Your task to perform on an android device: Open CNN.com Image 0: 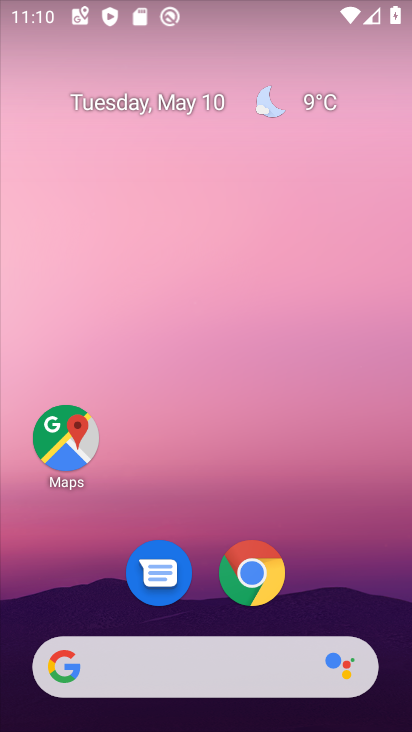
Step 0: click (253, 570)
Your task to perform on an android device: Open CNN.com Image 1: 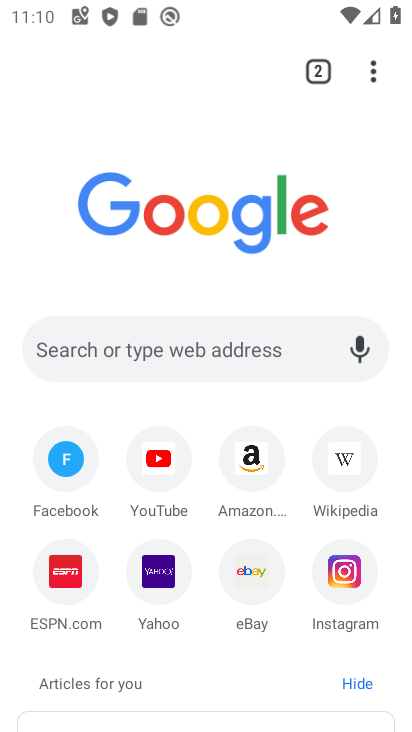
Step 1: click (184, 351)
Your task to perform on an android device: Open CNN.com Image 2: 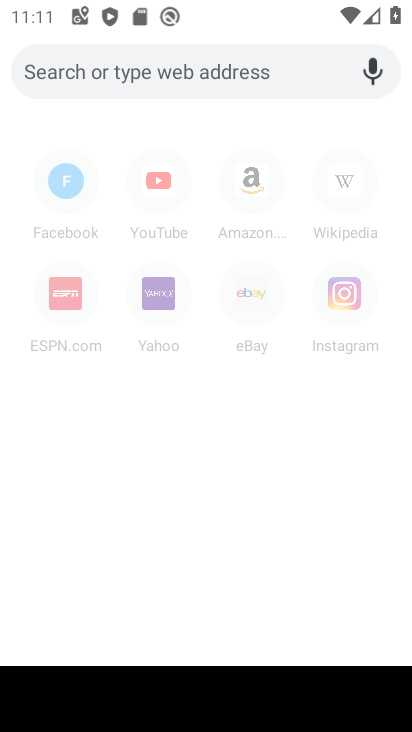
Step 2: type "CNN.com"
Your task to perform on an android device: Open CNN.com Image 3: 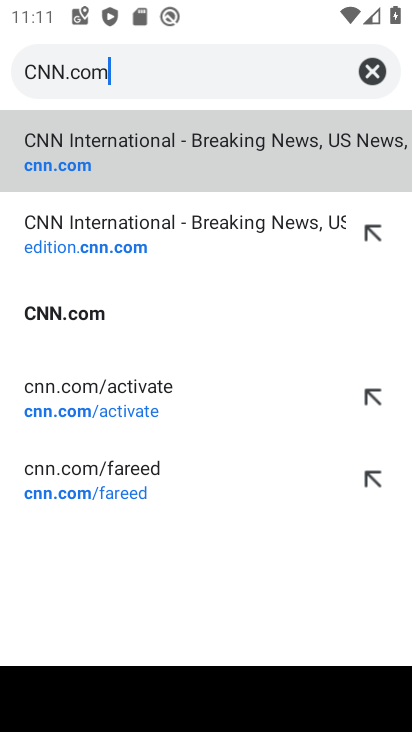
Step 3: click (93, 146)
Your task to perform on an android device: Open CNN.com Image 4: 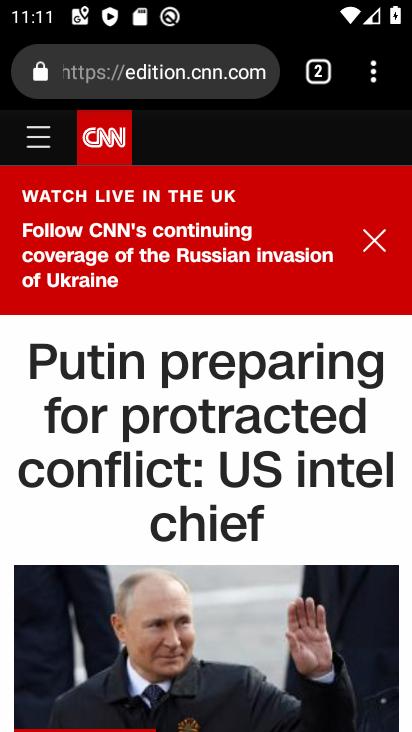
Step 4: task complete